Your task to perform on an android device: set the timer Image 0: 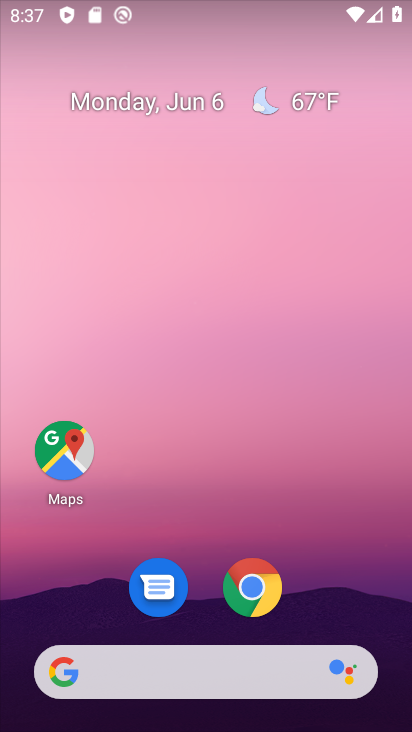
Step 0: drag from (211, 616) to (263, 34)
Your task to perform on an android device: set the timer Image 1: 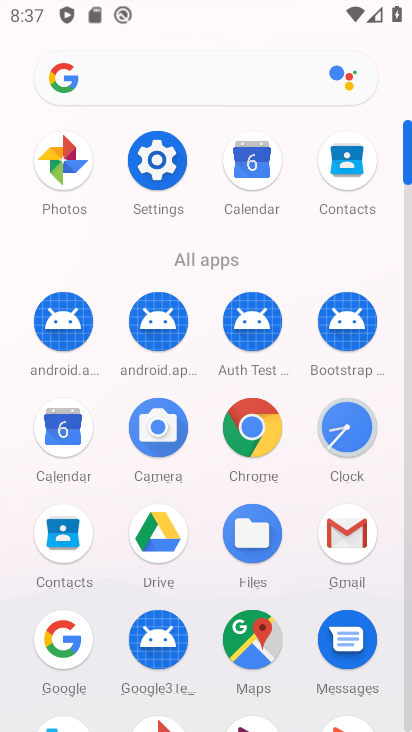
Step 1: click (334, 436)
Your task to perform on an android device: set the timer Image 2: 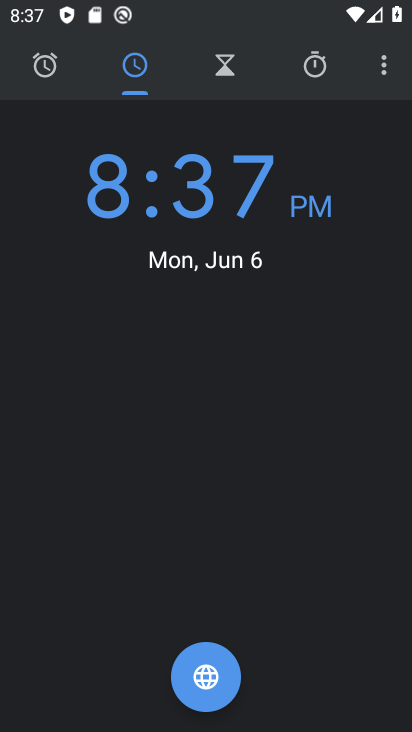
Step 2: click (229, 72)
Your task to perform on an android device: set the timer Image 3: 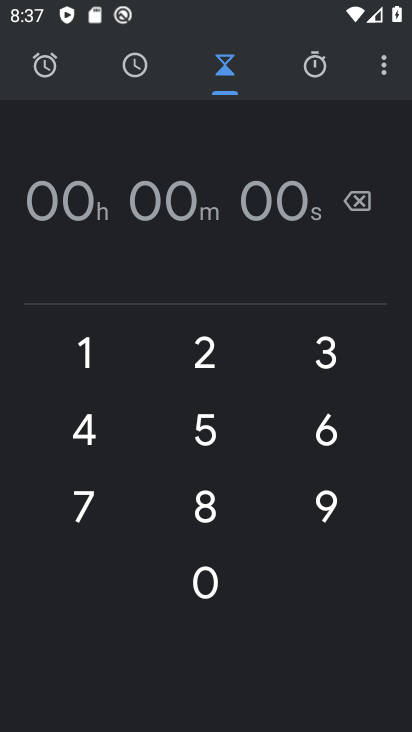
Step 3: click (200, 500)
Your task to perform on an android device: set the timer Image 4: 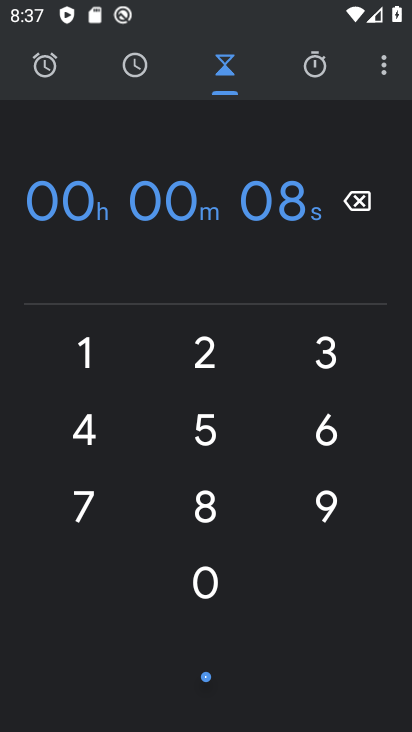
Step 4: click (202, 426)
Your task to perform on an android device: set the timer Image 5: 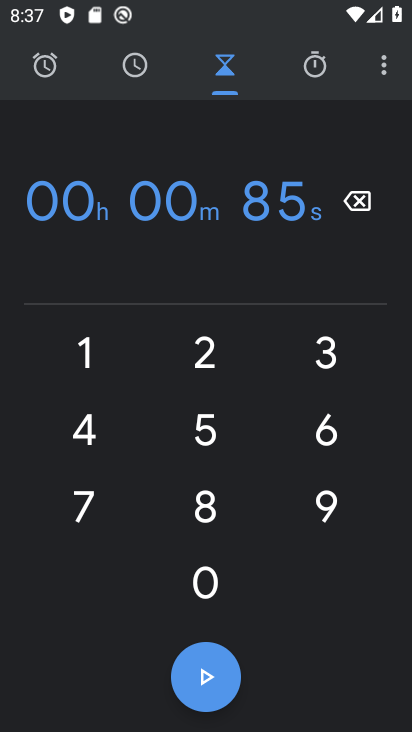
Step 5: click (76, 405)
Your task to perform on an android device: set the timer Image 6: 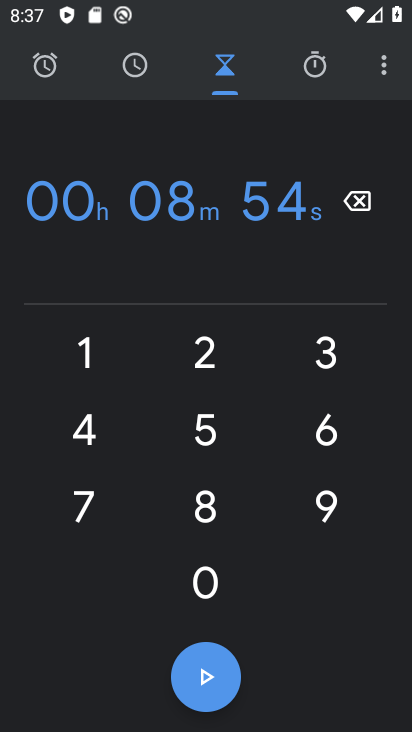
Step 6: click (200, 695)
Your task to perform on an android device: set the timer Image 7: 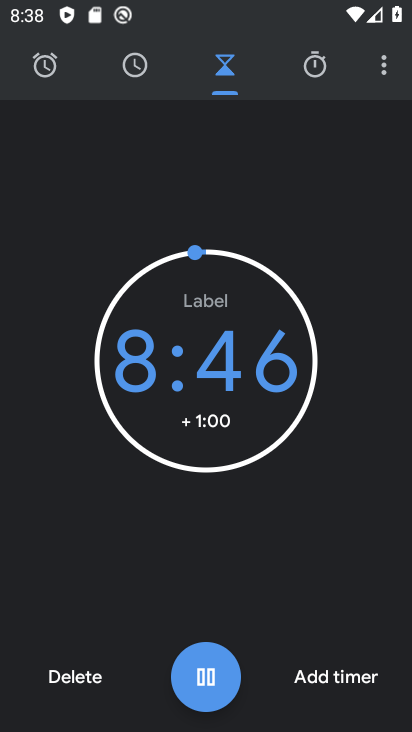
Step 7: task complete